Your task to perform on an android device: Go to calendar. Show me events next week Image 0: 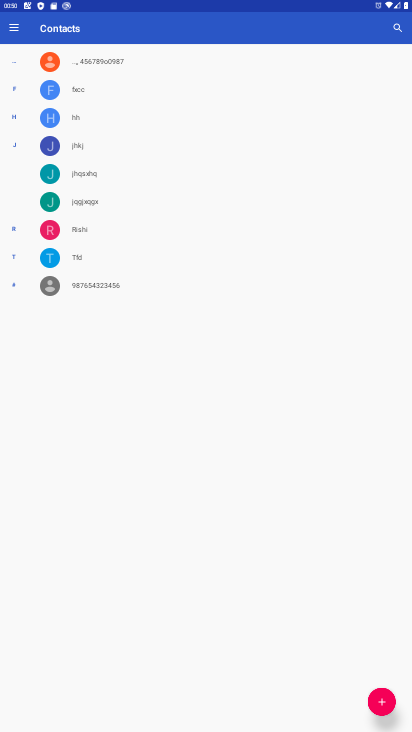
Step 0: press home button
Your task to perform on an android device: Go to calendar. Show me events next week Image 1: 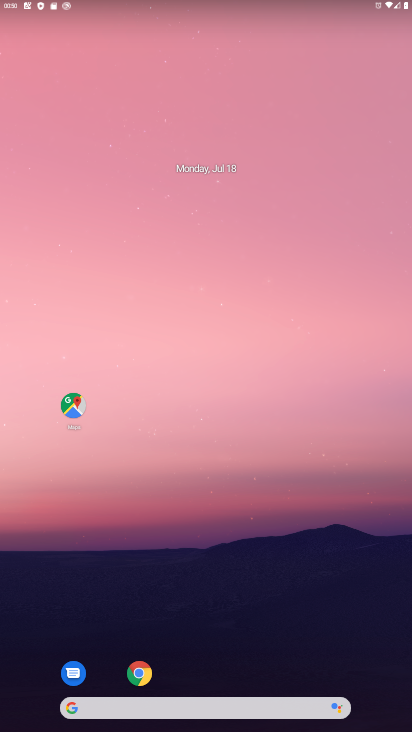
Step 1: drag from (207, 669) to (224, 55)
Your task to perform on an android device: Go to calendar. Show me events next week Image 2: 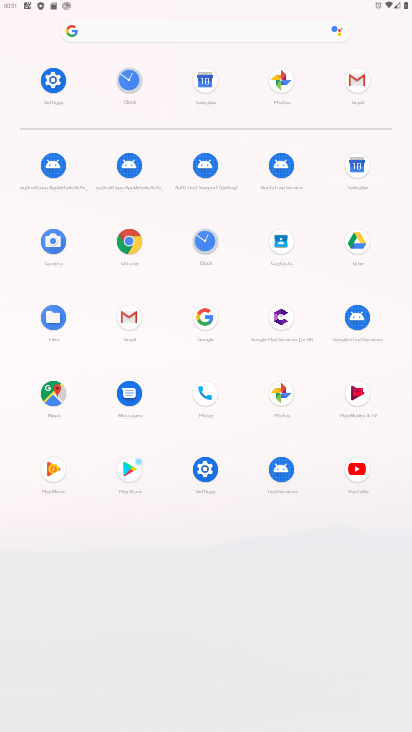
Step 2: click (204, 95)
Your task to perform on an android device: Go to calendar. Show me events next week Image 3: 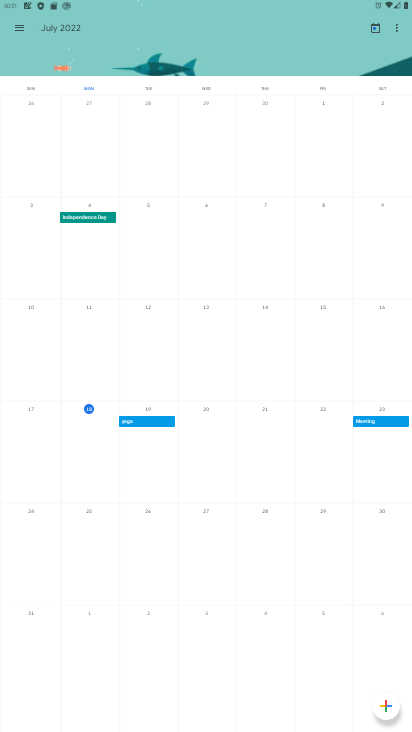
Step 3: task complete